Your task to perform on an android device: Open Chrome and go to settings Image 0: 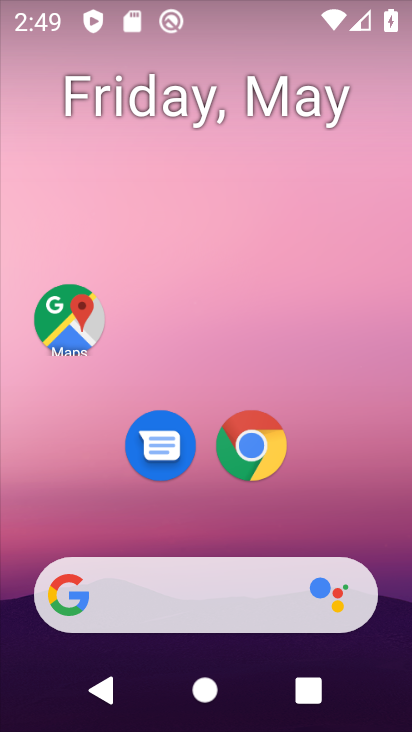
Step 0: drag from (233, 536) to (253, 4)
Your task to perform on an android device: Open Chrome and go to settings Image 1: 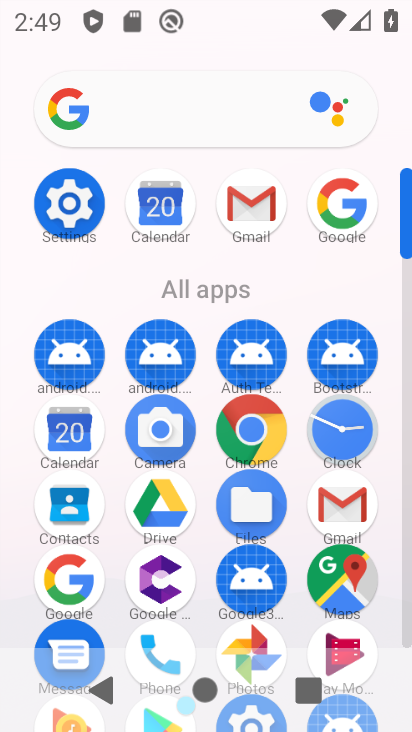
Step 1: click (254, 445)
Your task to perform on an android device: Open Chrome and go to settings Image 2: 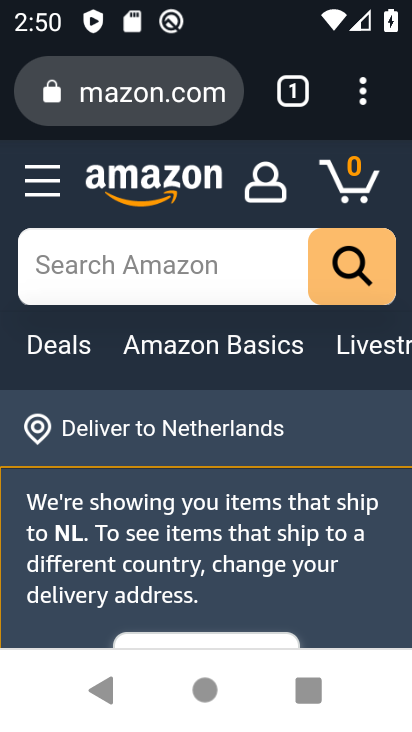
Step 2: click (365, 112)
Your task to perform on an android device: Open Chrome and go to settings Image 3: 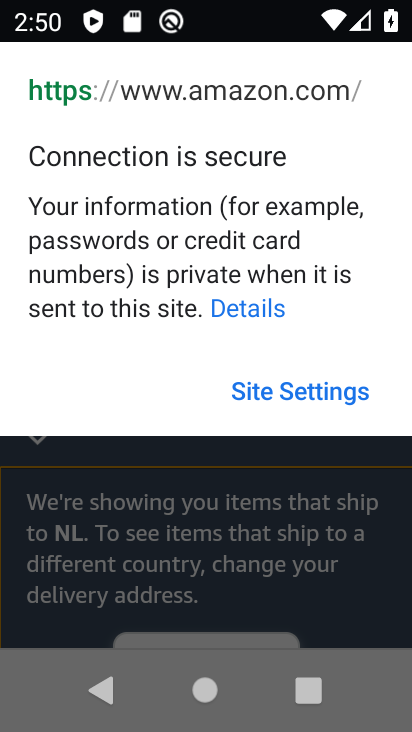
Step 3: press back button
Your task to perform on an android device: Open Chrome and go to settings Image 4: 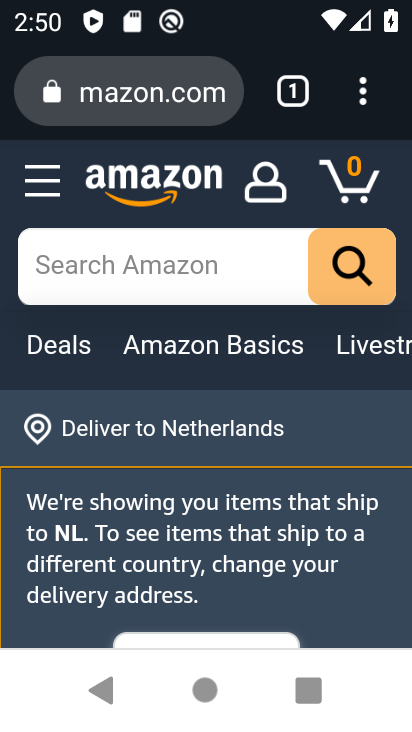
Step 4: click (362, 110)
Your task to perform on an android device: Open Chrome and go to settings Image 5: 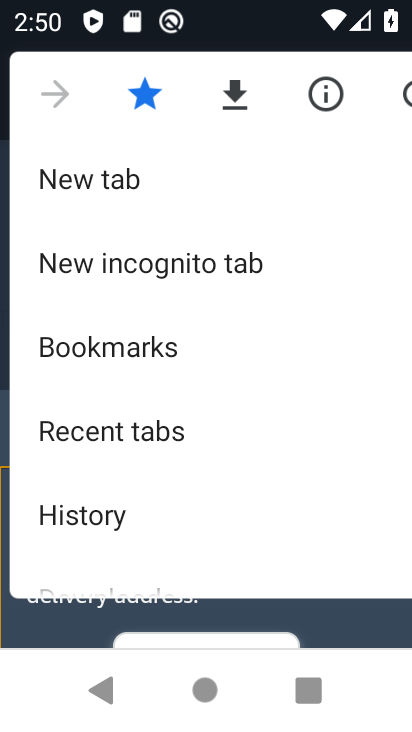
Step 5: drag from (191, 466) to (126, 28)
Your task to perform on an android device: Open Chrome and go to settings Image 6: 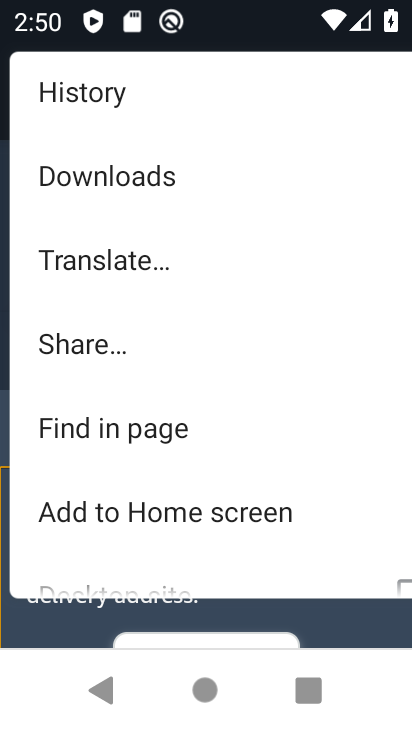
Step 6: drag from (121, 466) to (109, 105)
Your task to perform on an android device: Open Chrome and go to settings Image 7: 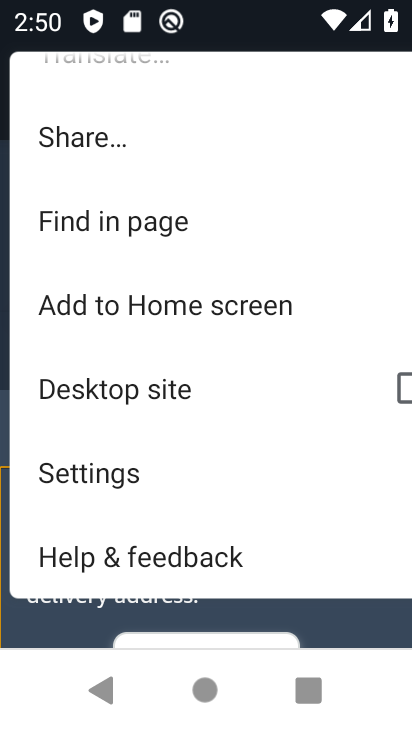
Step 7: click (122, 478)
Your task to perform on an android device: Open Chrome and go to settings Image 8: 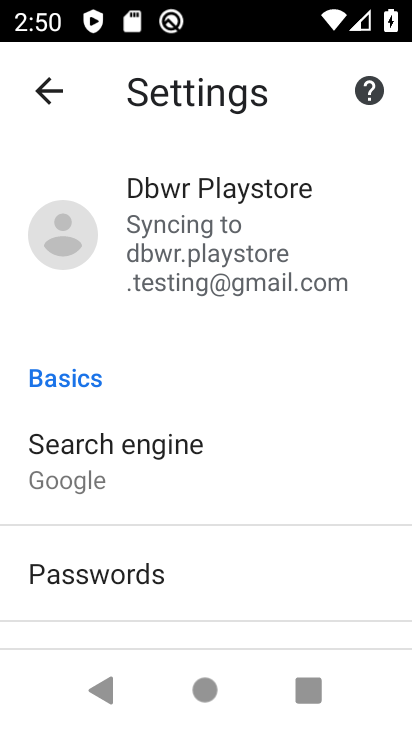
Step 8: task complete